Your task to perform on an android device: Open Youtube and go to "Your channel" Image 0: 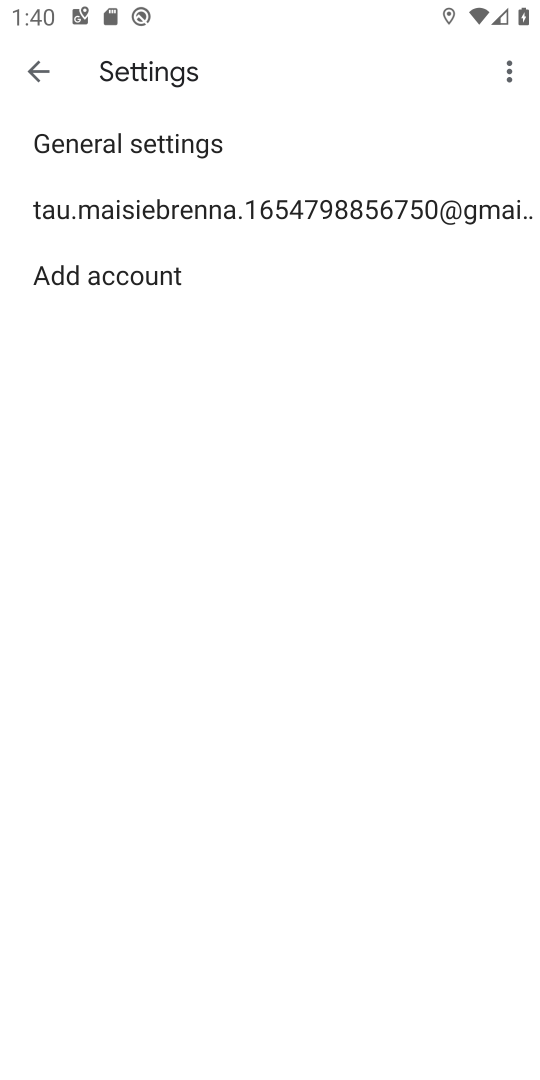
Step 0: press back button
Your task to perform on an android device: Open Youtube and go to "Your channel" Image 1: 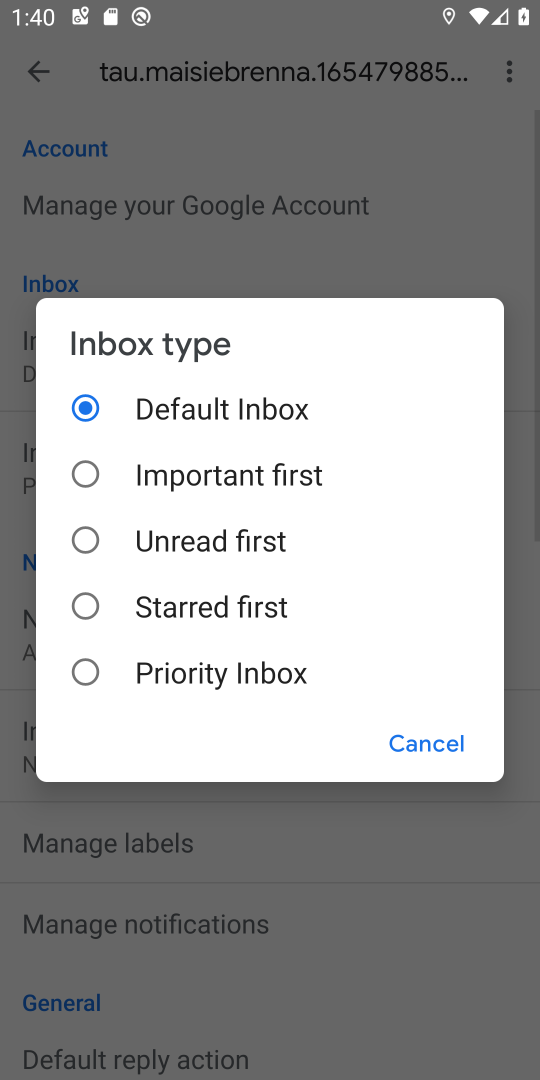
Step 1: press home button
Your task to perform on an android device: Open Youtube and go to "Your channel" Image 2: 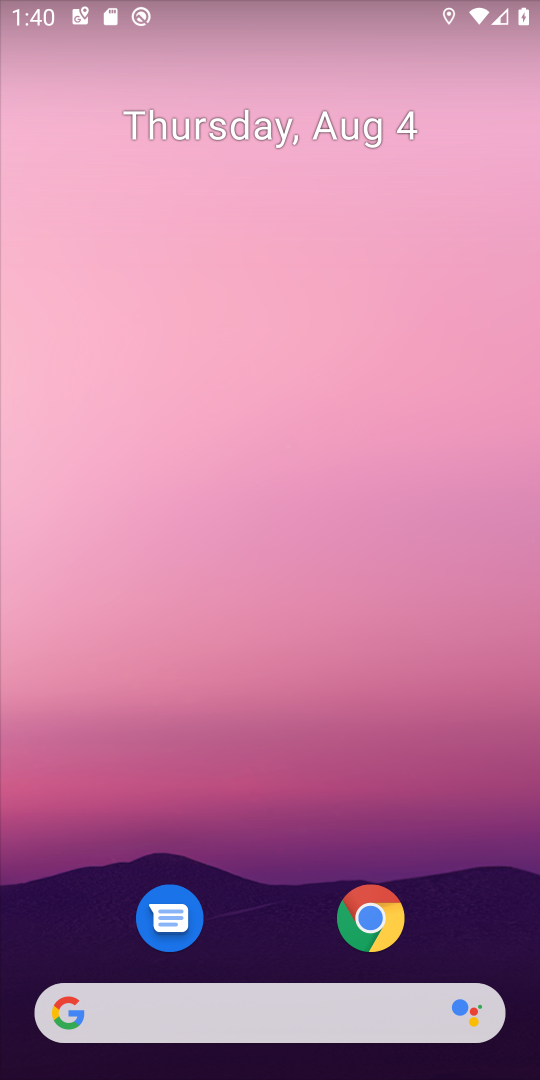
Step 2: drag from (206, 938) to (151, 110)
Your task to perform on an android device: Open Youtube and go to "Your channel" Image 3: 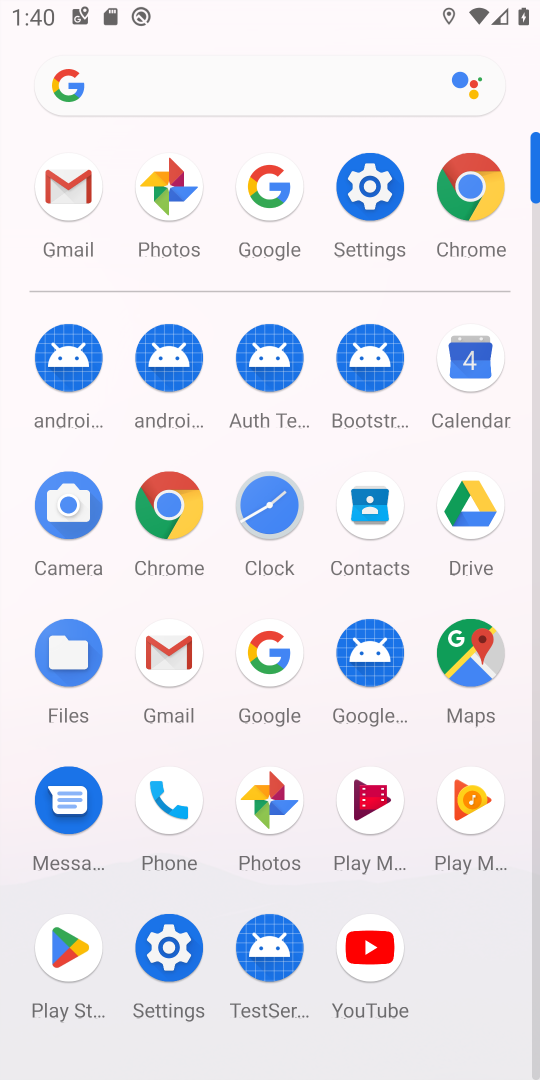
Step 3: click (374, 939)
Your task to perform on an android device: Open Youtube and go to "Your channel" Image 4: 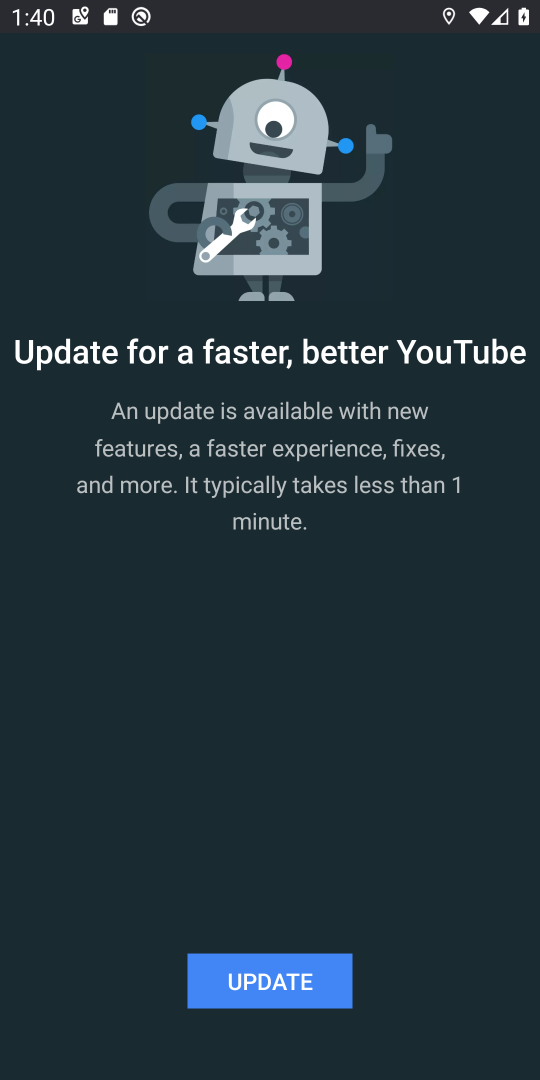
Step 4: click (325, 971)
Your task to perform on an android device: Open Youtube and go to "Your channel" Image 5: 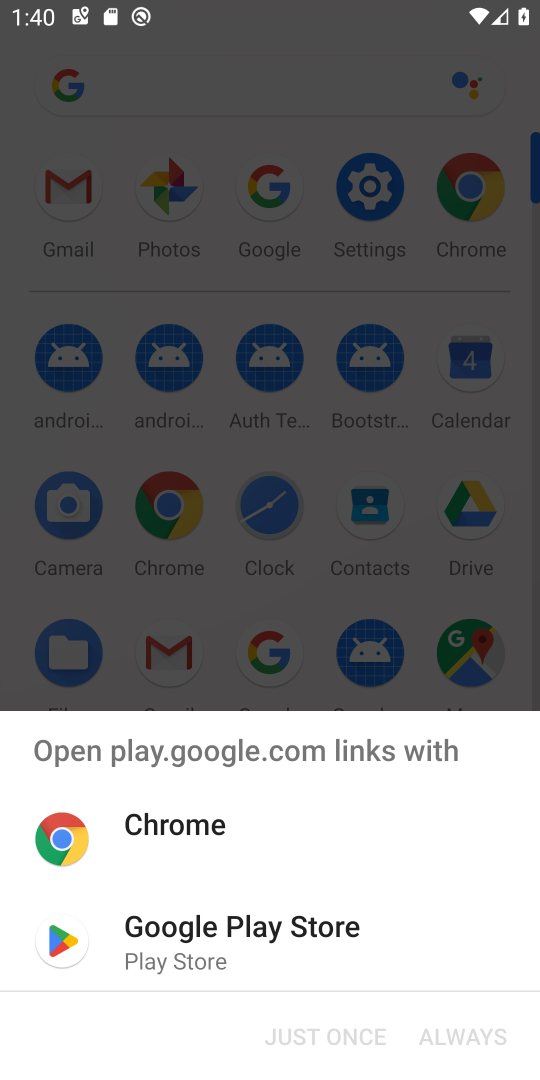
Step 5: click (209, 961)
Your task to perform on an android device: Open Youtube and go to "Your channel" Image 6: 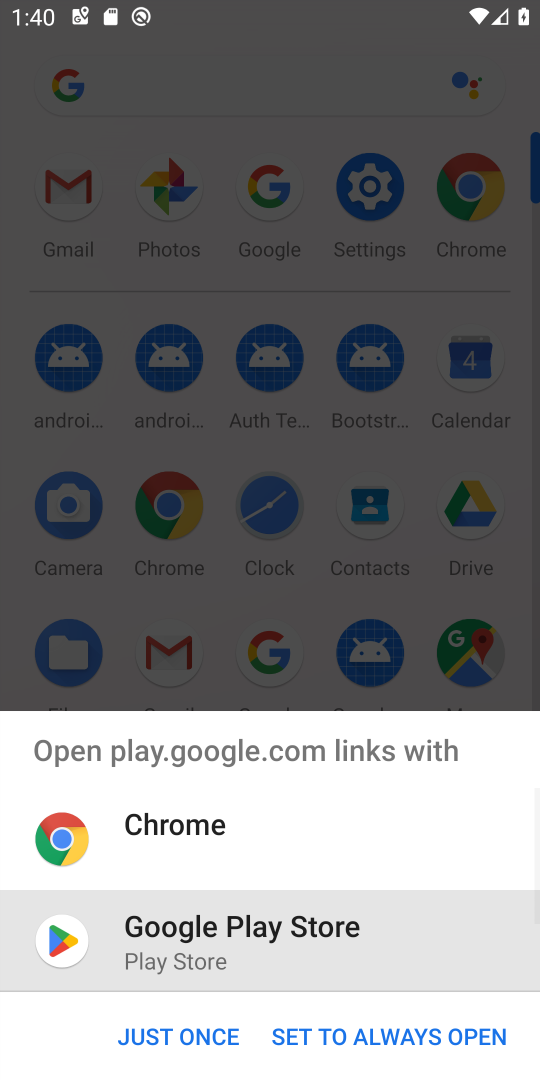
Step 6: click (204, 1025)
Your task to perform on an android device: Open Youtube and go to "Your channel" Image 7: 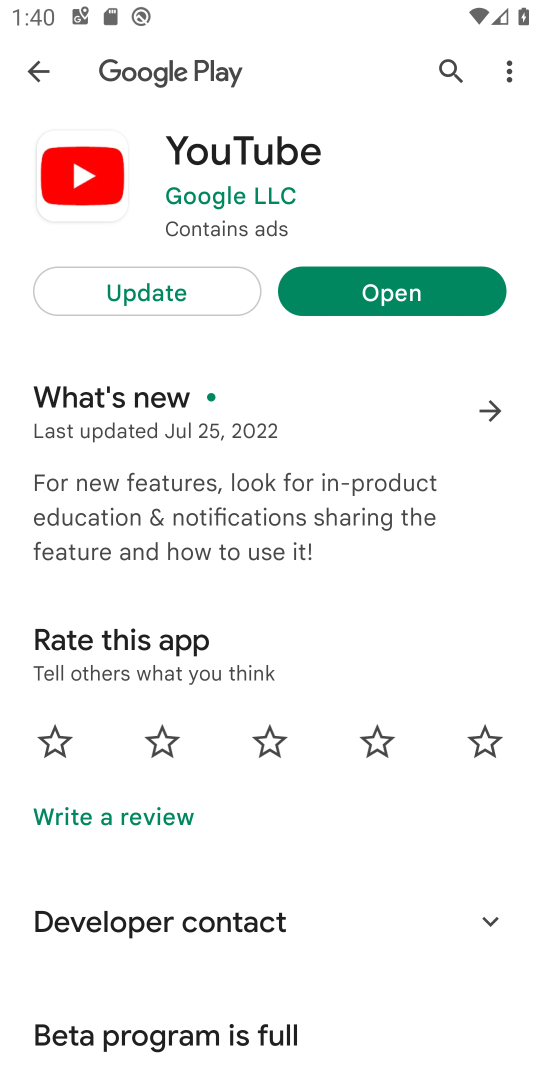
Step 7: click (189, 296)
Your task to perform on an android device: Open Youtube and go to "Your channel" Image 8: 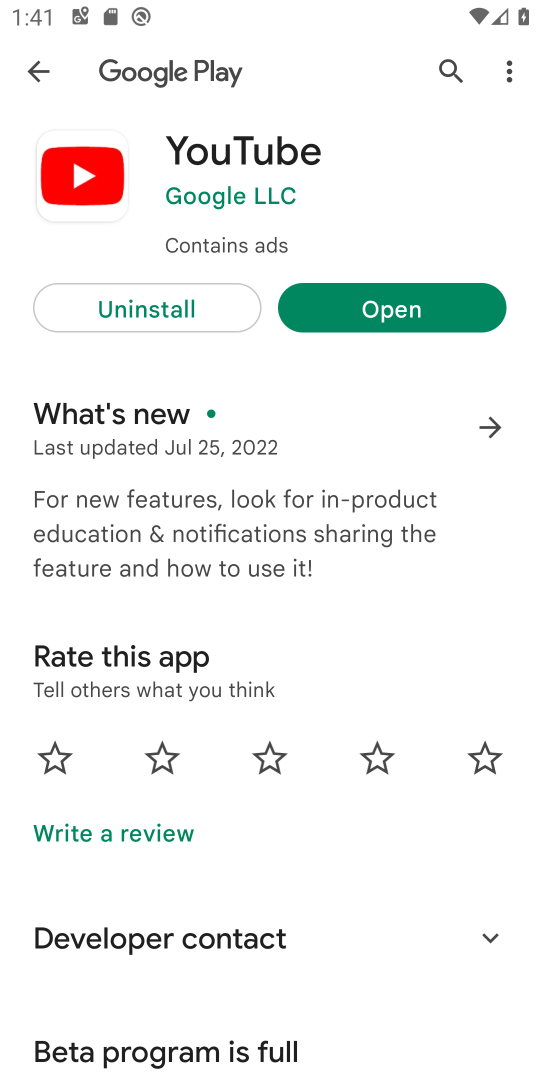
Step 8: click (425, 293)
Your task to perform on an android device: Open Youtube and go to "Your channel" Image 9: 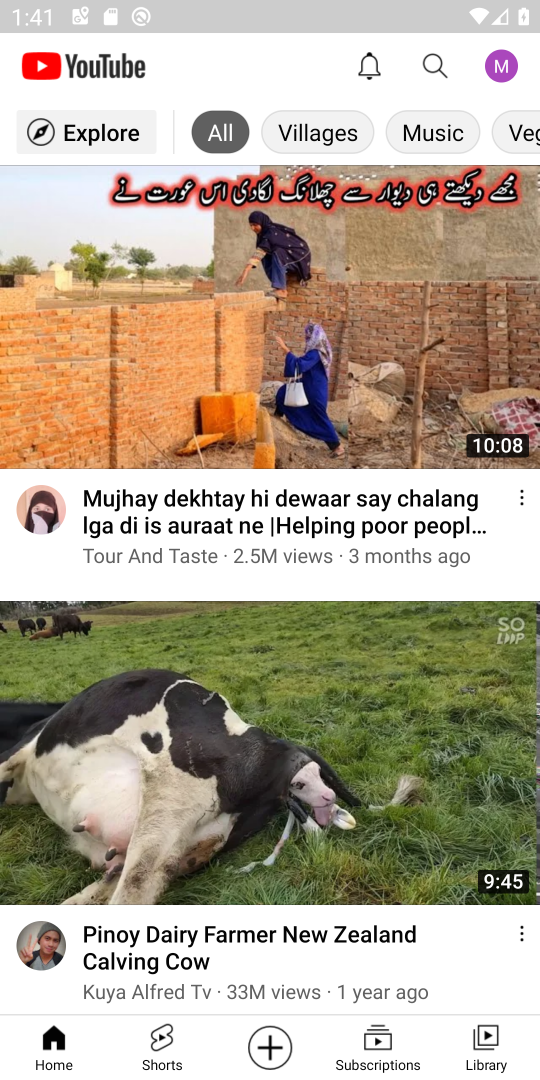
Step 9: click (500, 82)
Your task to perform on an android device: Open Youtube and go to "Your channel" Image 10: 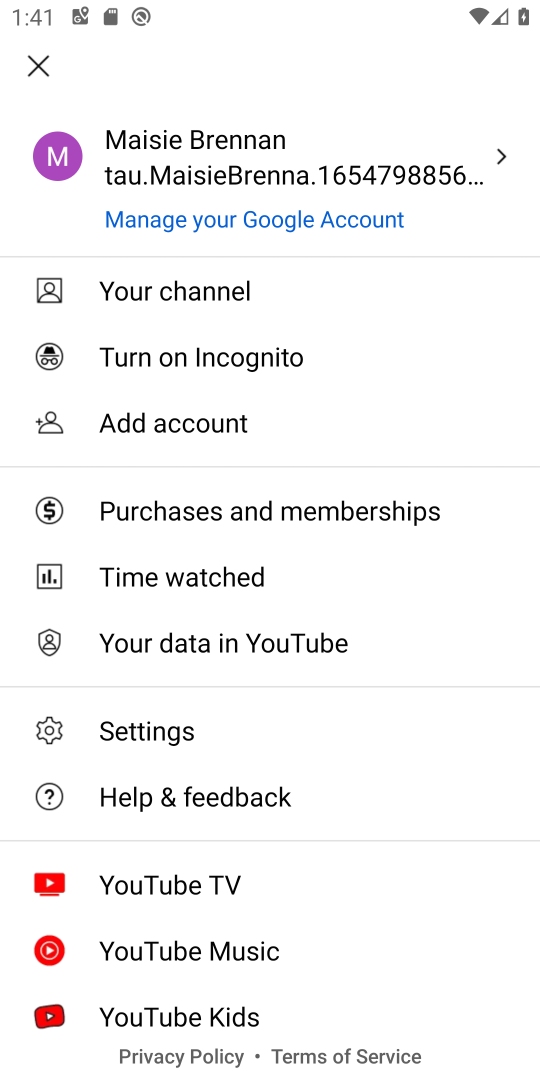
Step 10: click (233, 286)
Your task to perform on an android device: Open Youtube and go to "Your channel" Image 11: 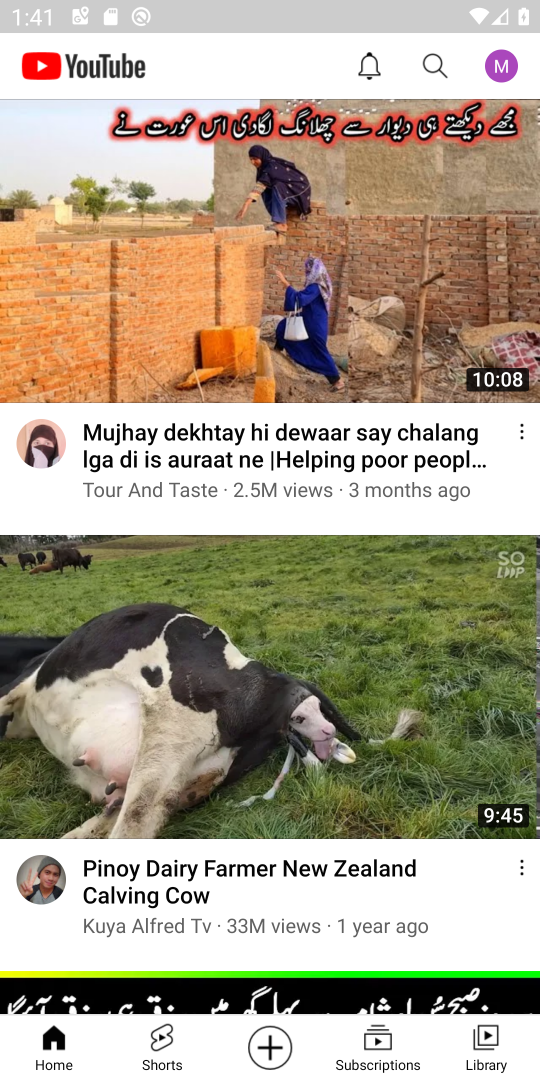
Step 11: task complete